Your task to perform on an android device: check out phone information Image 0: 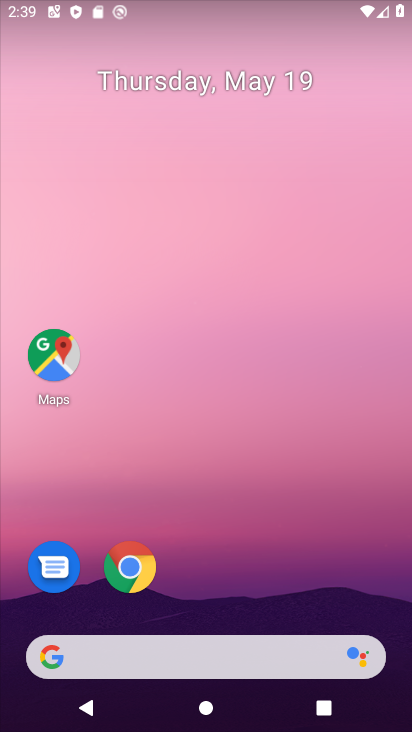
Step 0: drag from (217, 722) to (201, 257)
Your task to perform on an android device: check out phone information Image 1: 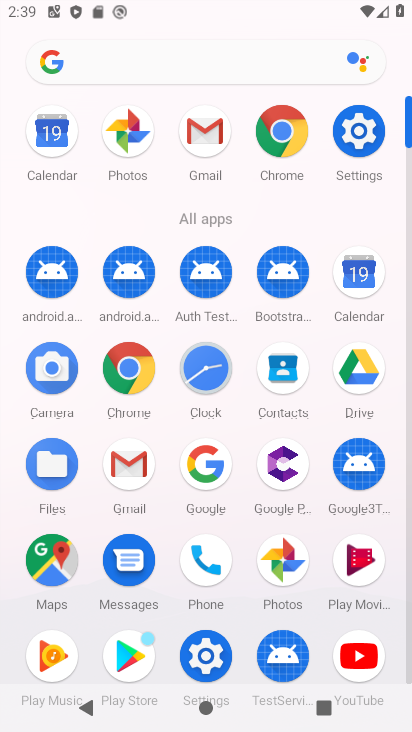
Step 1: click (355, 129)
Your task to perform on an android device: check out phone information Image 2: 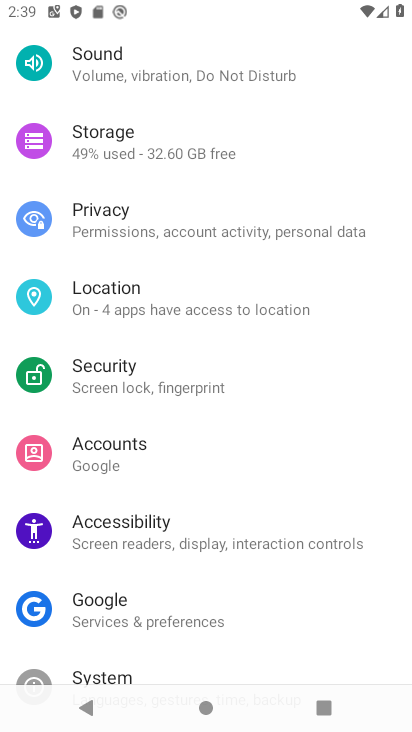
Step 2: drag from (153, 662) to (163, 304)
Your task to perform on an android device: check out phone information Image 3: 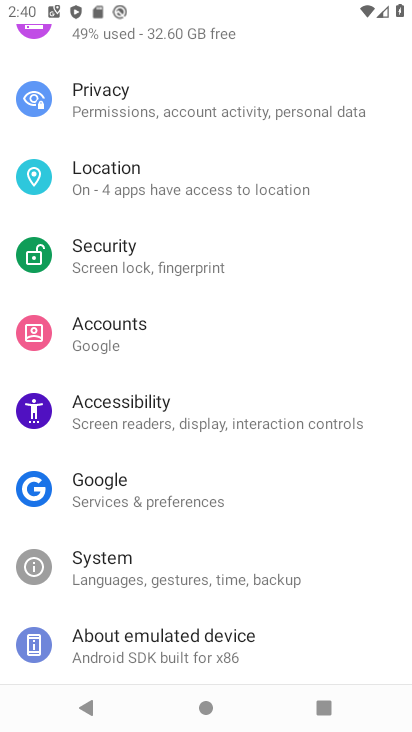
Step 3: click (151, 647)
Your task to perform on an android device: check out phone information Image 4: 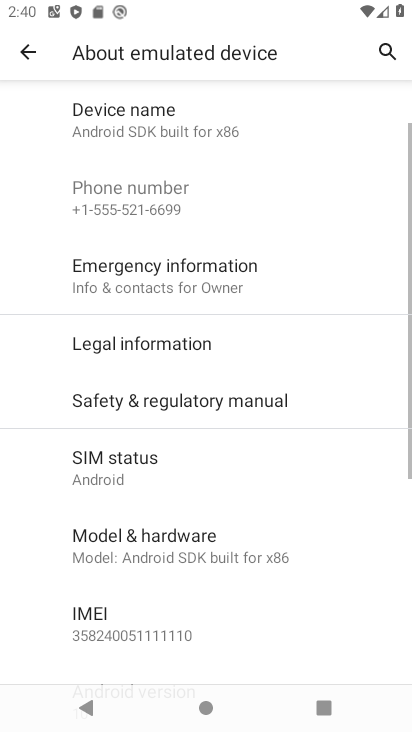
Step 4: task complete